Your task to perform on an android device: find which apps use the phone's location Image 0: 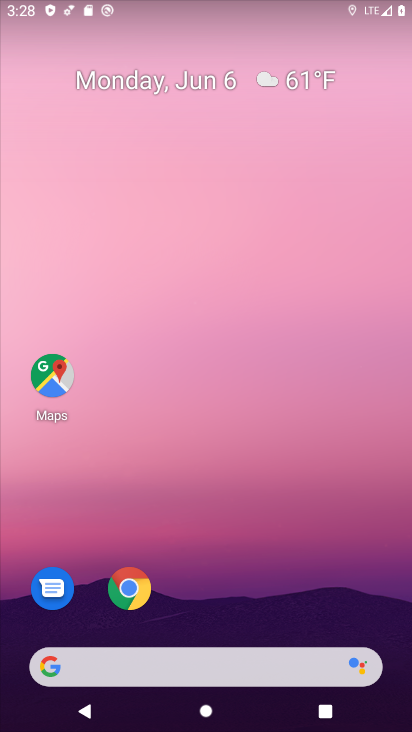
Step 0: drag from (205, 591) to (198, 379)
Your task to perform on an android device: find which apps use the phone's location Image 1: 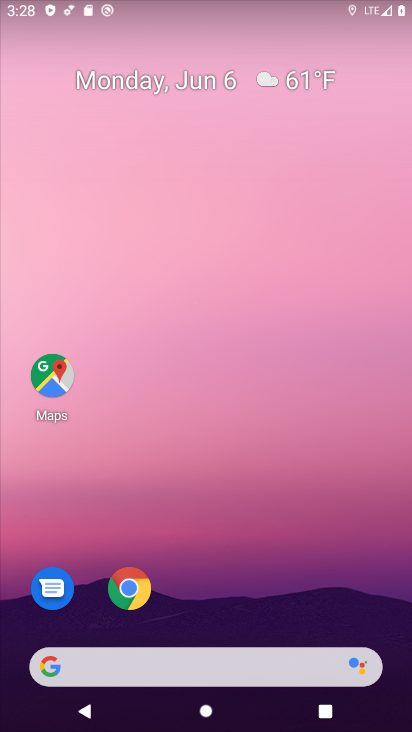
Step 1: drag from (212, 622) to (204, 165)
Your task to perform on an android device: find which apps use the phone's location Image 2: 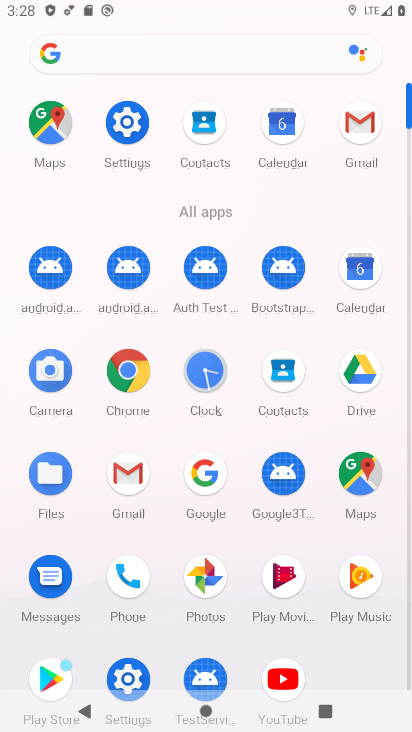
Step 2: click (132, 122)
Your task to perform on an android device: find which apps use the phone's location Image 3: 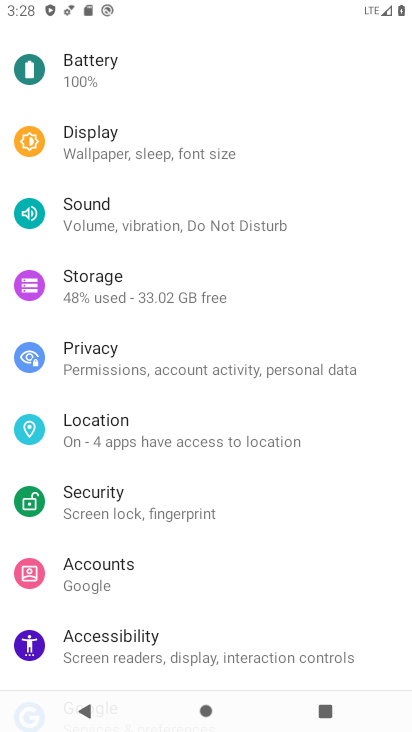
Step 3: click (188, 457)
Your task to perform on an android device: find which apps use the phone's location Image 4: 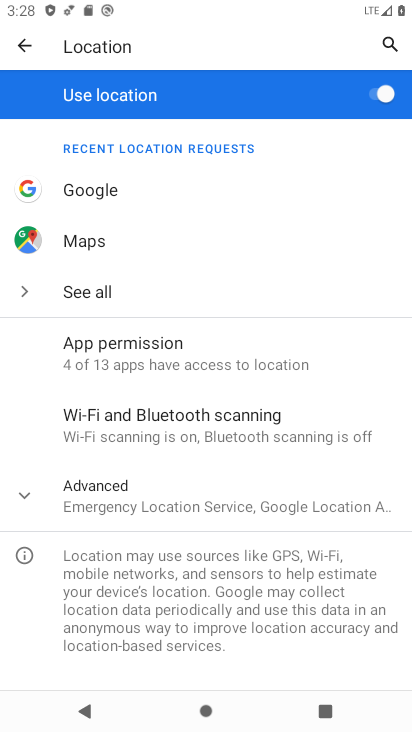
Step 4: click (181, 366)
Your task to perform on an android device: find which apps use the phone's location Image 5: 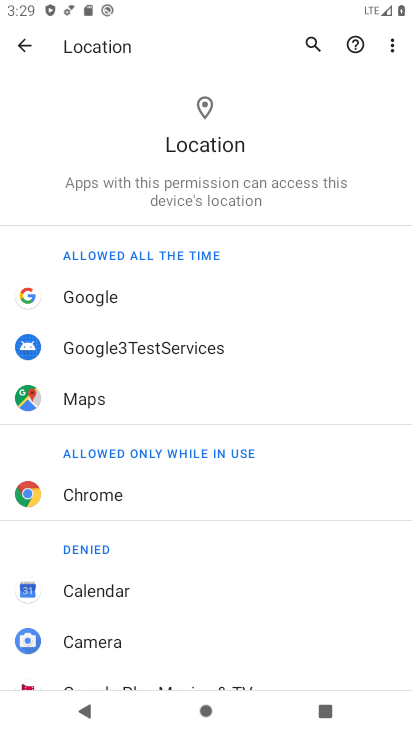
Step 5: task complete